Your task to perform on an android device: Open the phone app and click the voicemail tab. Image 0: 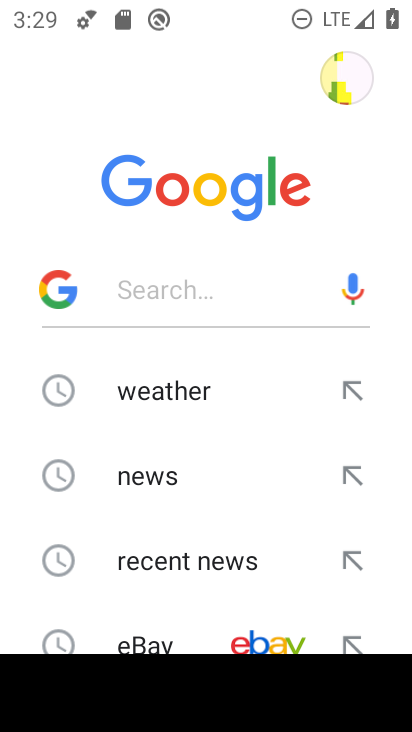
Step 0: press home button
Your task to perform on an android device: Open the phone app and click the voicemail tab. Image 1: 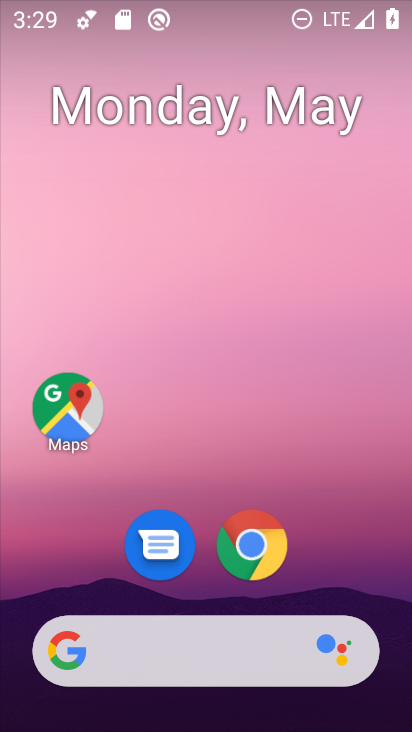
Step 1: drag from (337, 551) to (281, 64)
Your task to perform on an android device: Open the phone app and click the voicemail tab. Image 2: 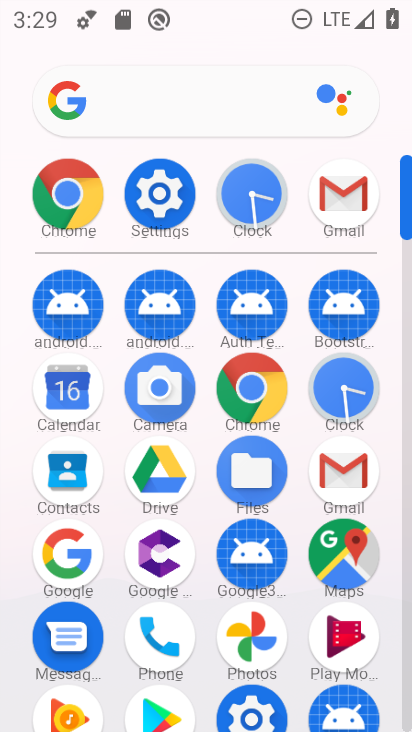
Step 2: click (147, 649)
Your task to perform on an android device: Open the phone app and click the voicemail tab. Image 3: 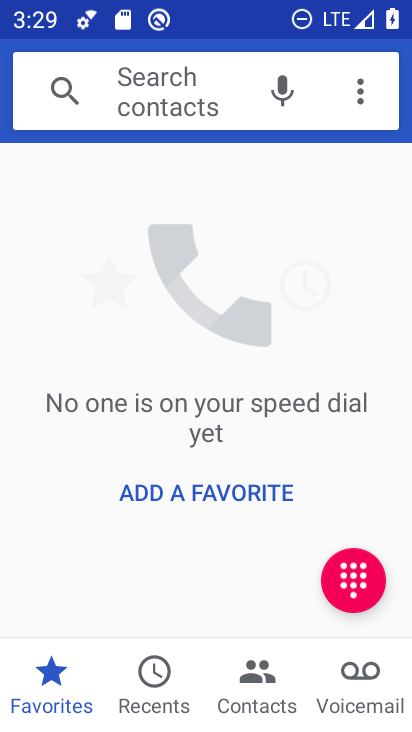
Step 3: click (358, 683)
Your task to perform on an android device: Open the phone app and click the voicemail tab. Image 4: 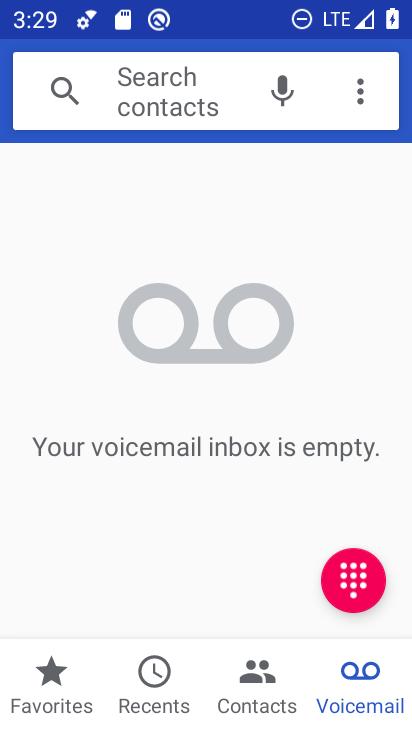
Step 4: task complete